Your task to perform on an android device: stop showing notifications on the lock screen Image 0: 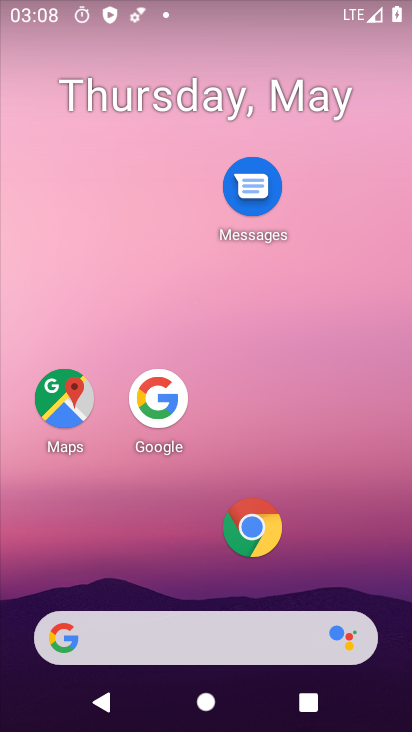
Step 0: drag from (206, 562) to (197, 115)
Your task to perform on an android device: stop showing notifications on the lock screen Image 1: 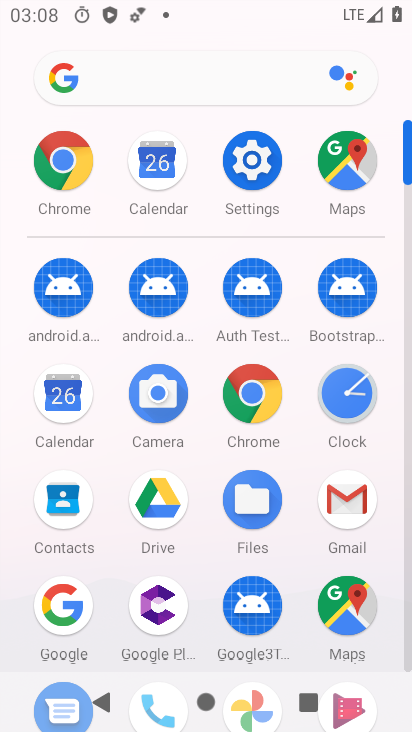
Step 1: click (263, 152)
Your task to perform on an android device: stop showing notifications on the lock screen Image 2: 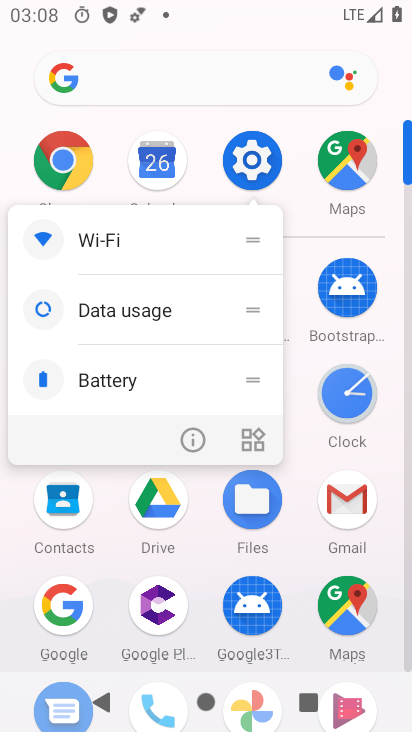
Step 2: click (197, 434)
Your task to perform on an android device: stop showing notifications on the lock screen Image 3: 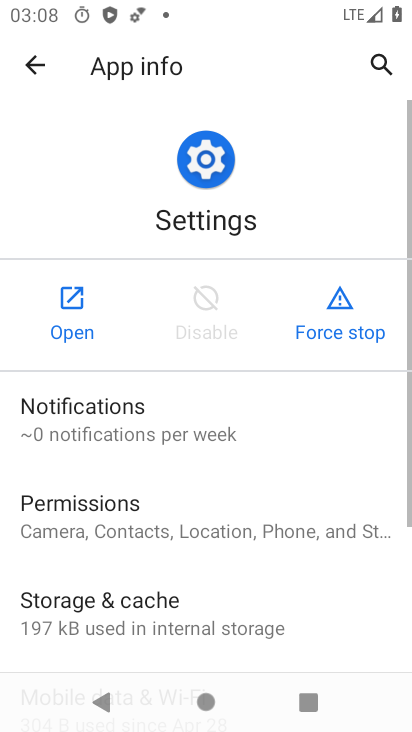
Step 3: click (54, 302)
Your task to perform on an android device: stop showing notifications on the lock screen Image 4: 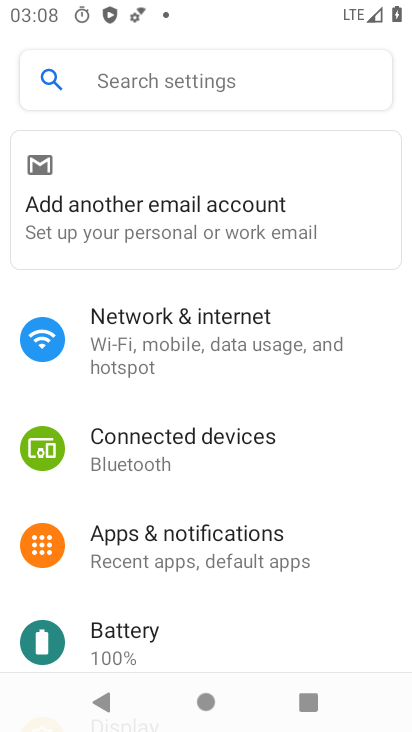
Step 4: click (171, 543)
Your task to perform on an android device: stop showing notifications on the lock screen Image 5: 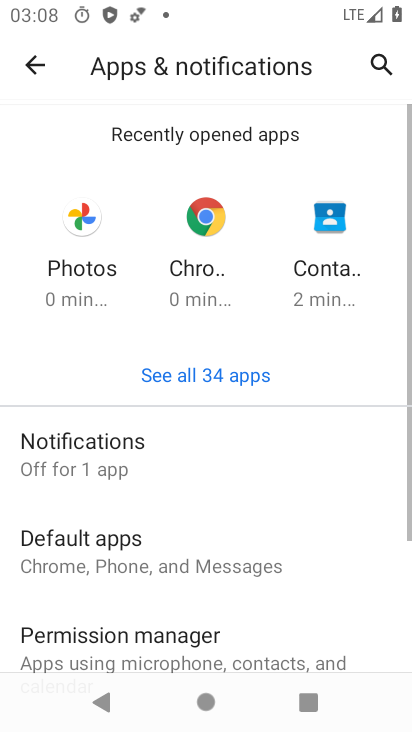
Step 5: click (157, 432)
Your task to perform on an android device: stop showing notifications on the lock screen Image 6: 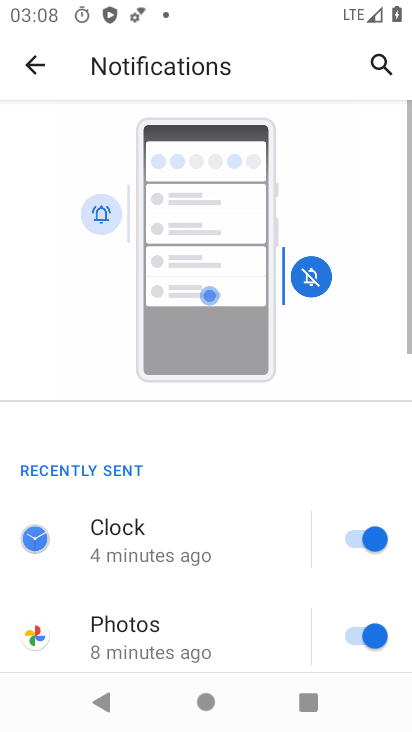
Step 6: drag from (209, 533) to (315, 4)
Your task to perform on an android device: stop showing notifications on the lock screen Image 7: 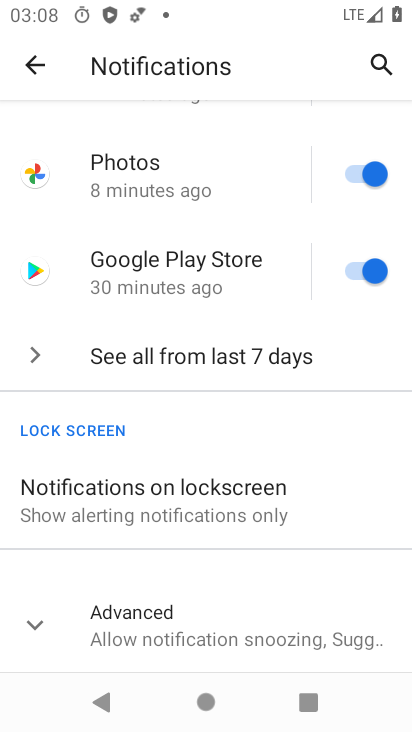
Step 7: click (202, 526)
Your task to perform on an android device: stop showing notifications on the lock screen Image 8: 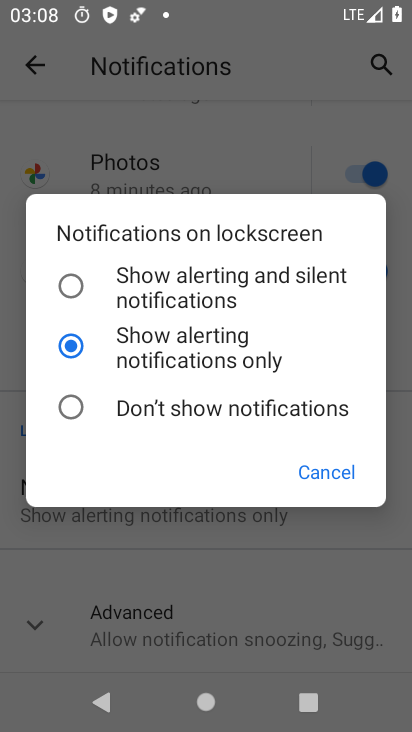
Step 8: click (110, 412)
Your task to perform on an android device: stop showing notifications on the lock screen Image 9: 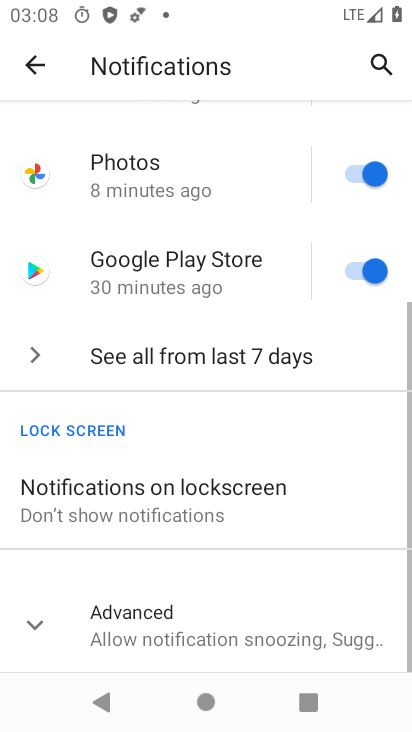
Step 9: task complete